Your task to perform on an android device: find snoozed emails in the gmail app Image 0: 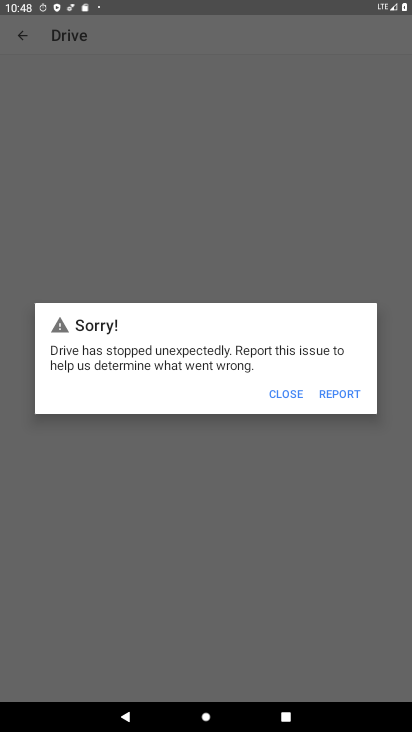
Step 0: click (295, 392)
Your task to perform on an android device: find snoozed emails in the gmail app Image 1: 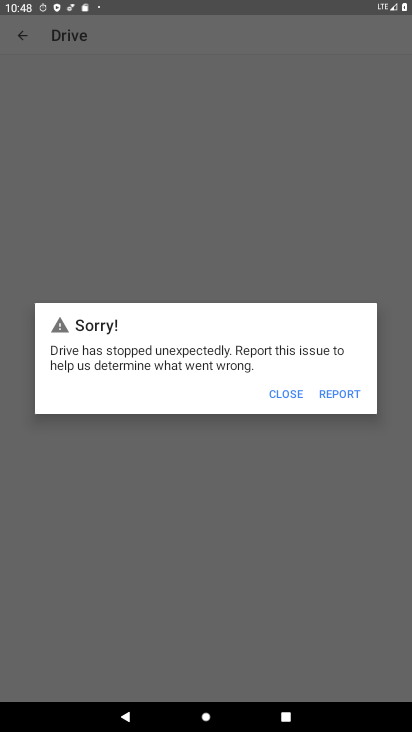
Step 1: click (292, 389)
Your task to perform on an android device: find snoozed emails in the gmail app Image 2: 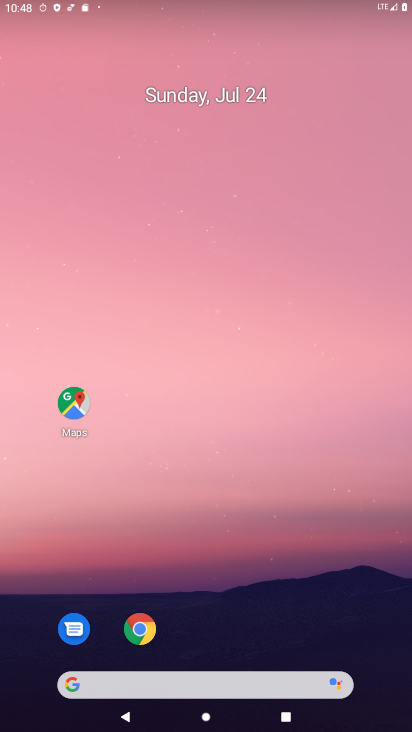
Step 2: drag from (244, 254) to (230, 138)
Your task to perform on an android device: find snoozed emails in the gmail app Image 3: 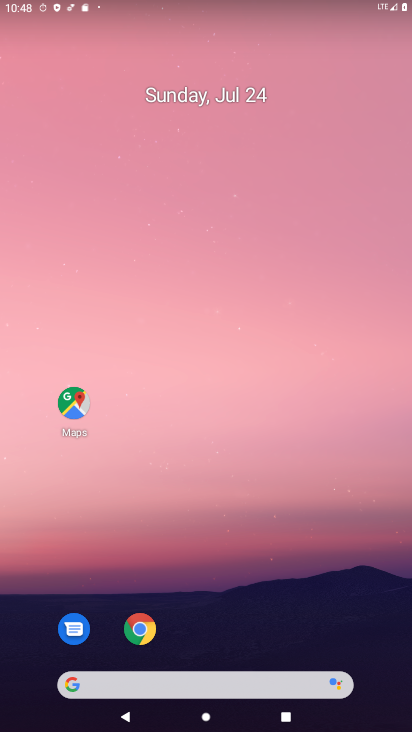
Step 3: drag from (177, 522) to (195, 23)
Your task to perform on an android device: find snoozed emails in the gmail app Image 4: 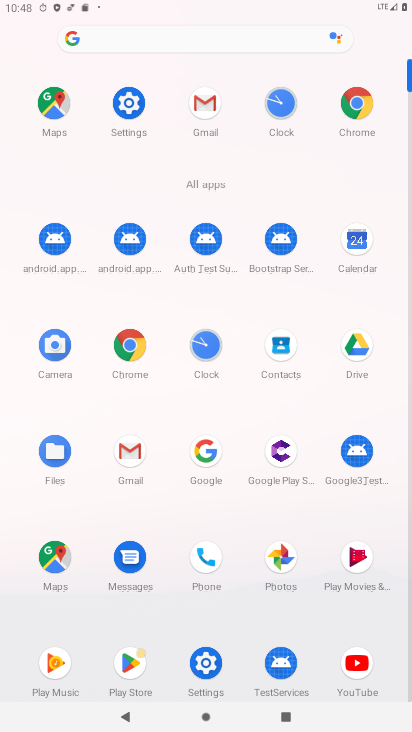
Step 4: click (286, 42)
Your task to perform on an android device: find snoozed emails in the gmail app Image 5: 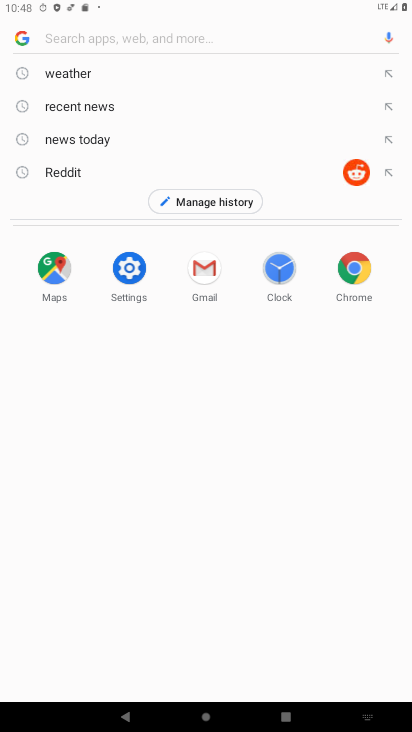
Step 5: click (199, 272)
Your task to perform on an android device: find snoozed emails in the gmail app Image 6: 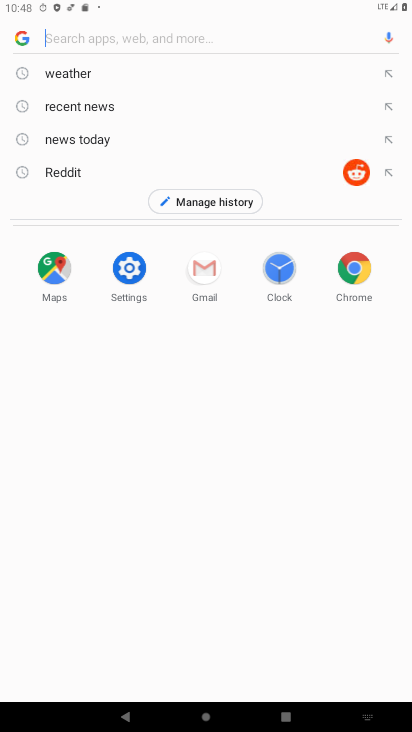
Step 6: click (198, 271)
Your task to perform on an android device: find snoozed emails in the gmail app Image 7: 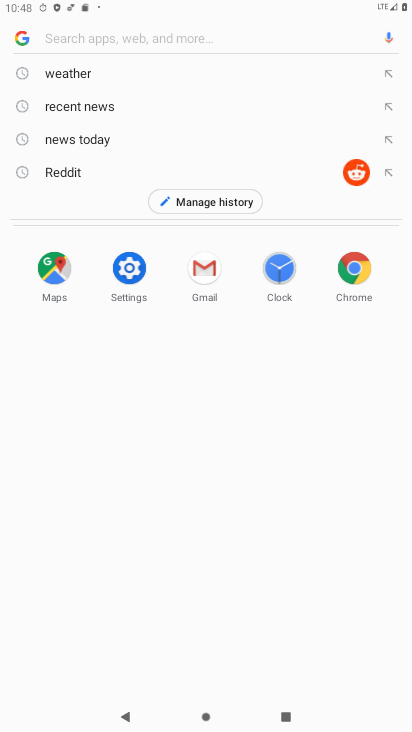
Step 7: click (195, 272)
Your task to perform on an android device: find snoozed emails in the gmail app Image 8: 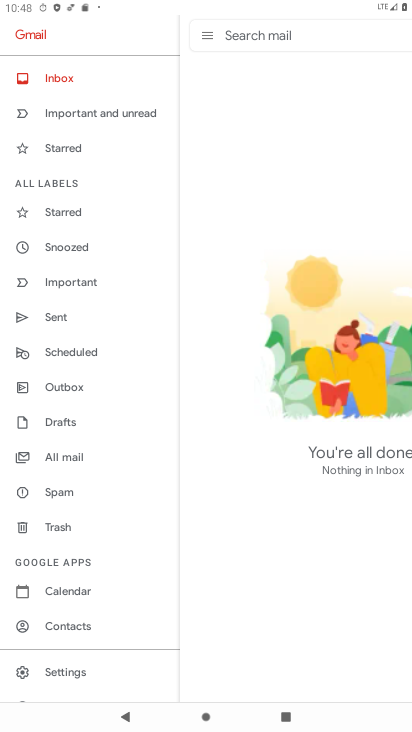
Step 8: click (72, 246)
Your task to perform on an android device: find snoozed emails in the gmail app Image 9: 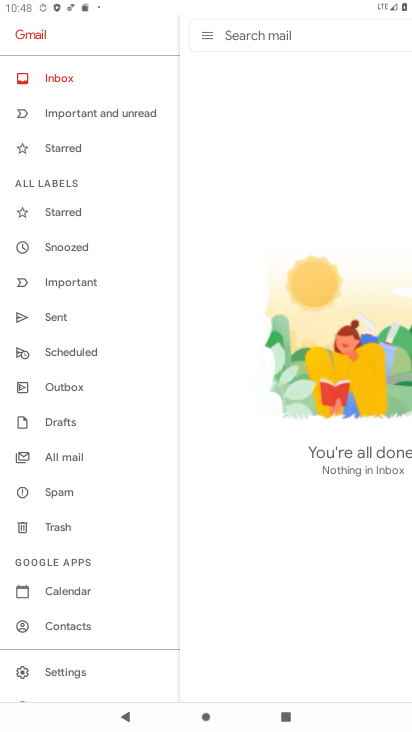
Step 9: click (70, 246)
Your task to perform on an android device: find snoozed emails in the gmail app Image 10: 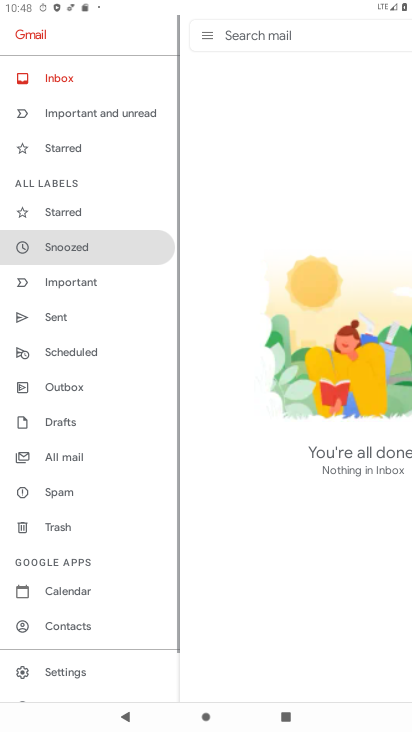
Step 10: click (68, 250)
Your task to perform on an android device: find snoozed emails in the gmail app Image 11: 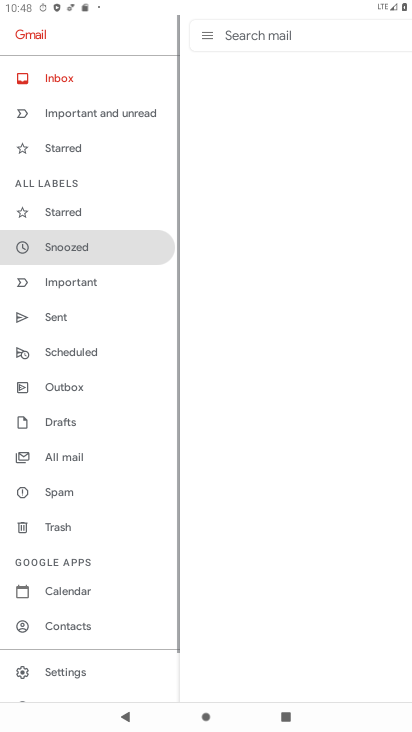
Step 11: click (72, 246)
Your task to perform on an android device: find snoozed emails in the gmail app Image 12: 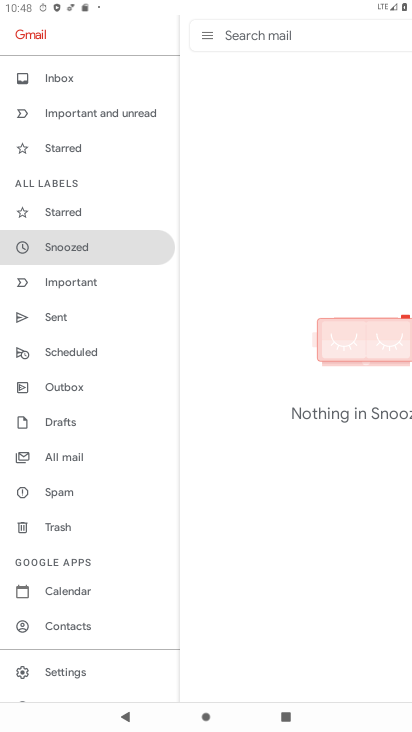
Step 12: task complete